Your task to perform on an android device: turn on priority inbox in the gmail app Image 0: 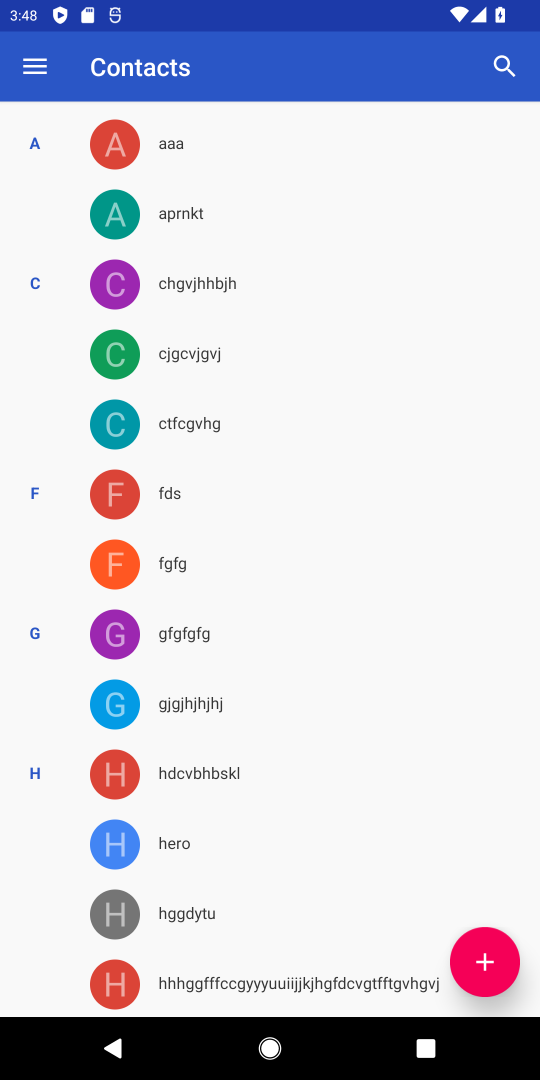
Step 0: press home button
Your task to perform on an android device: turn on priority inbox in the gmail app Image 1: 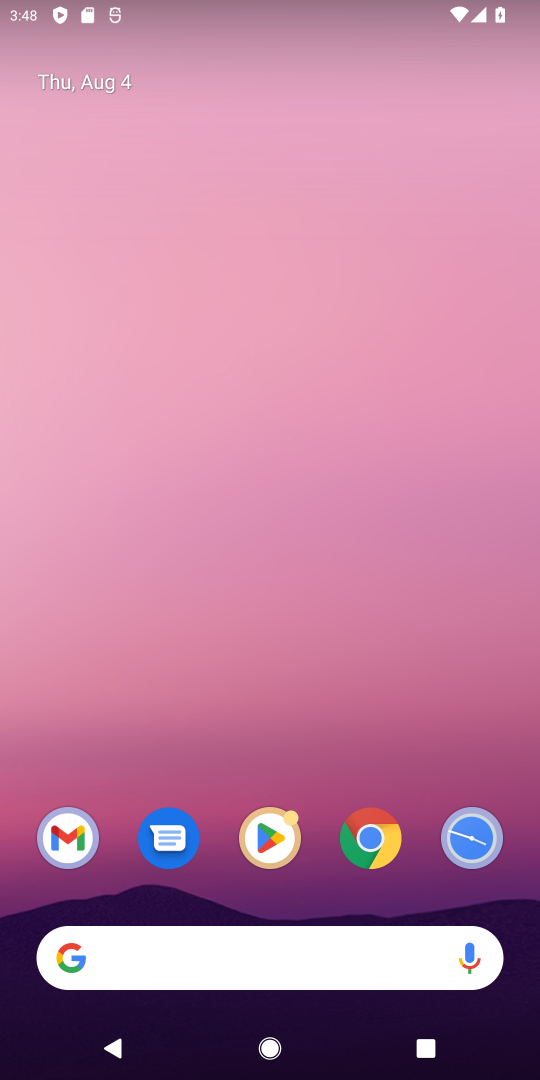
Step 1: drag from (450, 743) to (358, 214)
Your task to perform on an android device: turn on priority inbox in the gmail app Image 2: 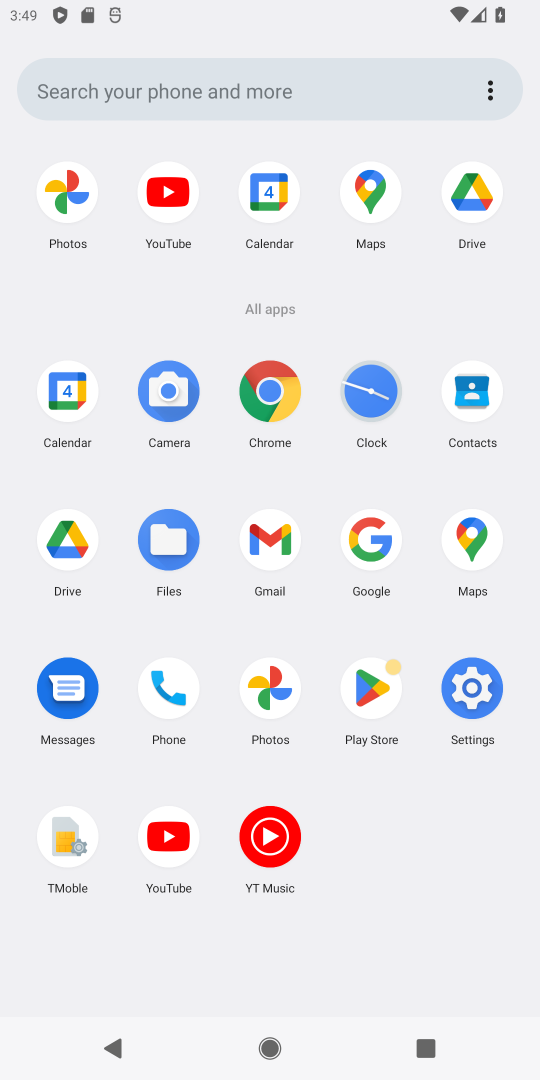
Step 2: click (268, 541)
Your task to perform on an android device: turn on priority inbox in the gmail app Image 3: 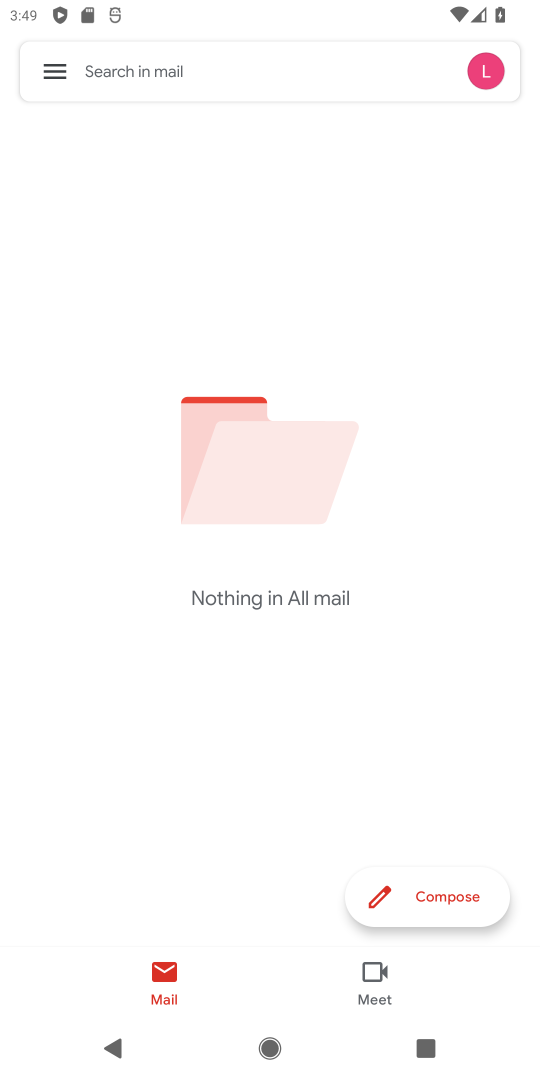
Step 3: click (48, 68)
Your task to perform on an android device: turn on priority inbox in the gmail app Image 4: 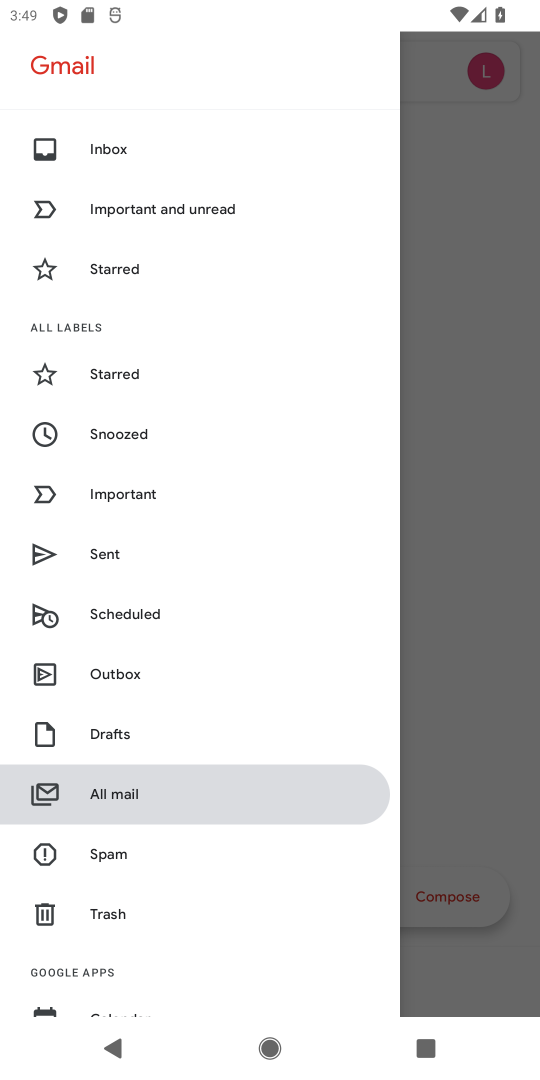
Step 4: drag from (198, 882) to (196, 475)
Your task to perform on an android device: turn on priority inbox in the gmail app Image 5: 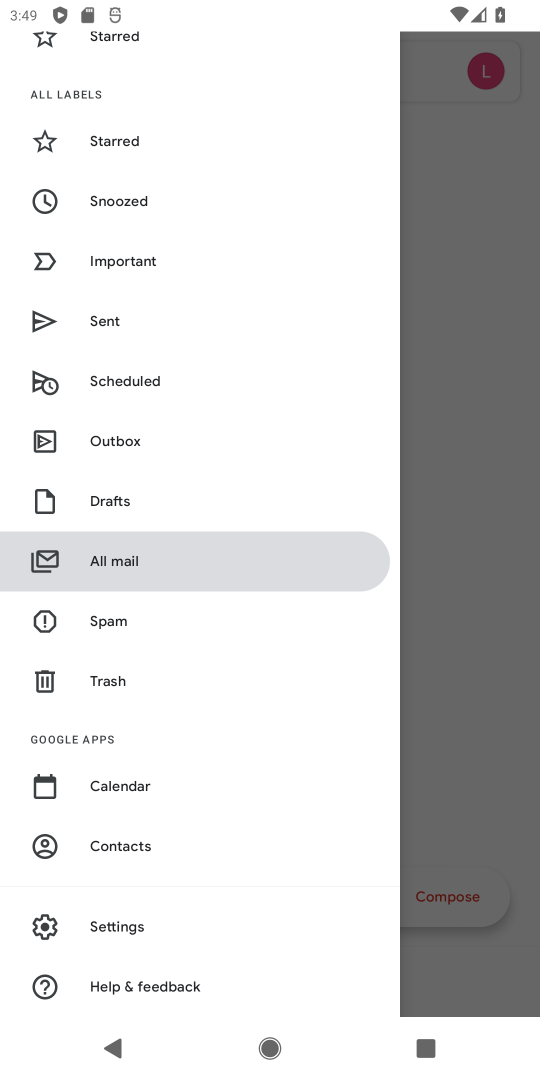
Step 5: click (157, 917)
Your task to perform on an android device: turn on priority inbox in the gmail app Image 6: 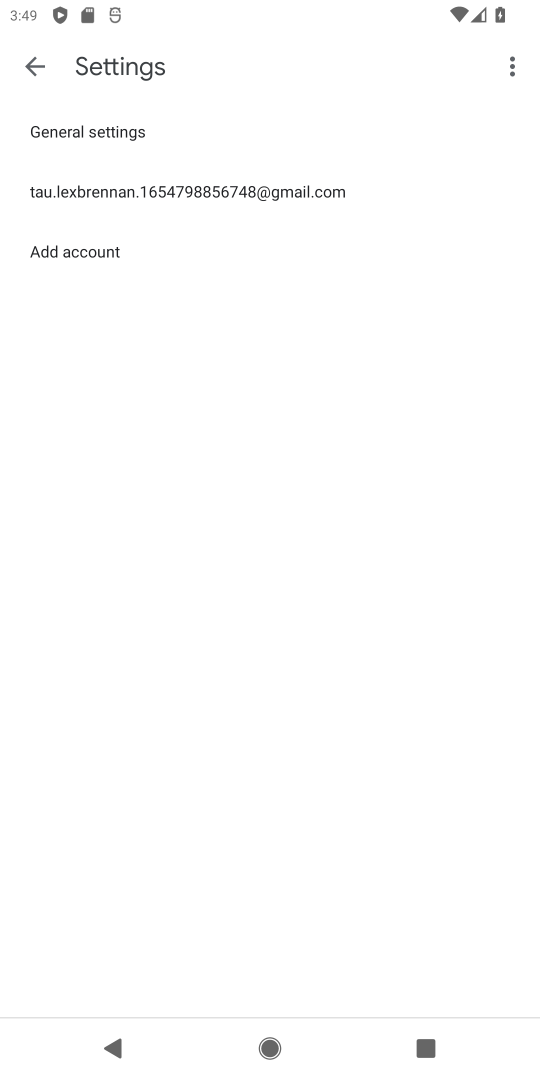
Step 6: click (169, 180)
Your task to perform on an android device: turn on priority inbox in the gmail app Image 7: 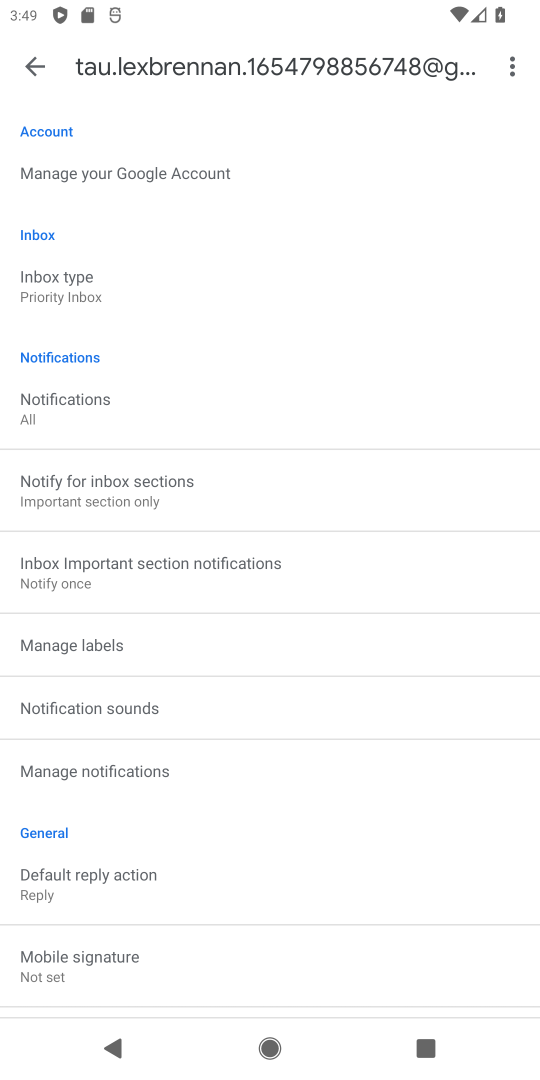
Step 7: task complete